Your task to perform on an android device: See recent photos Image 0: 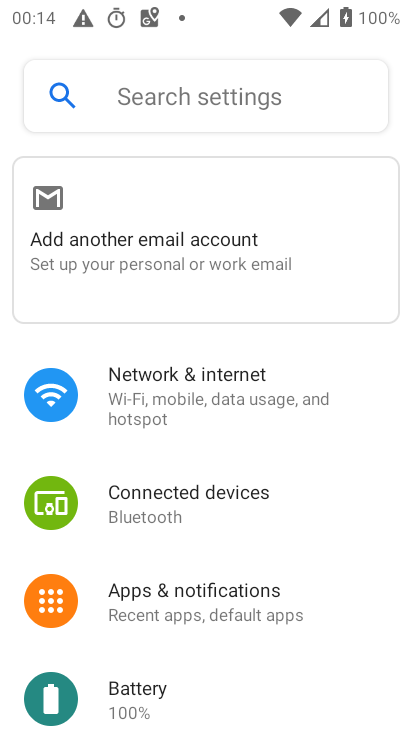
Step 0: press back button
Your task to perform on an android device: See recent photos Image 1: 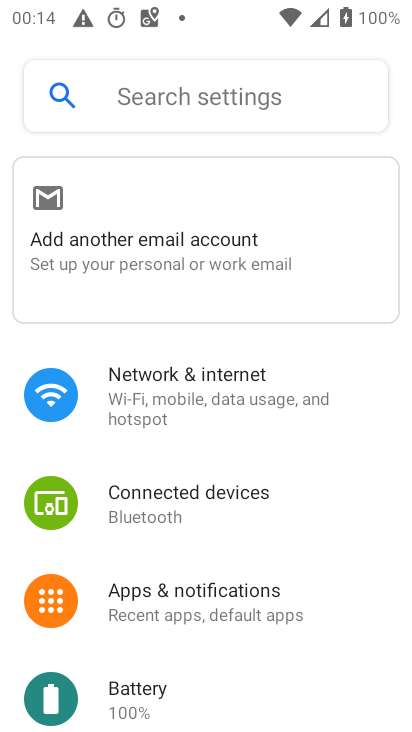
Step 1: press home button
Your task to perform on an android device: See recent photos Image 2: 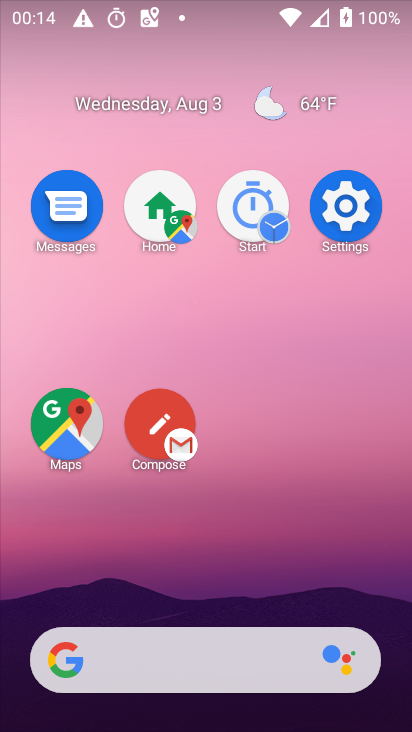
Step 2: drag from (205, 660) to (170, 219)
Your task to perform on an android device: See recent photos Image 3: 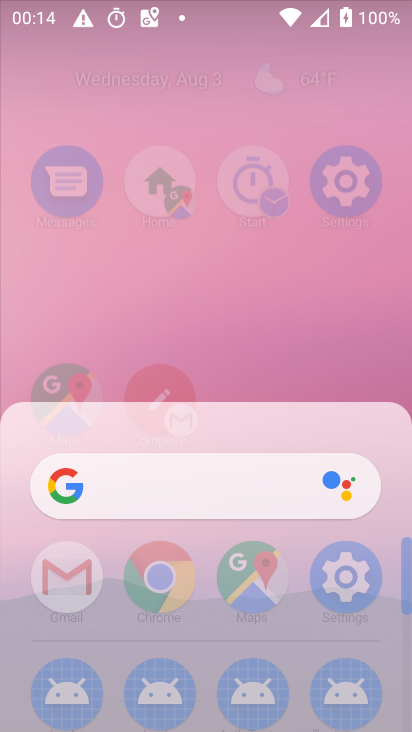
Step 3: drag from (176, 569) to (220, 4)
Your task to perform on an android device: See recent photos Image 4: 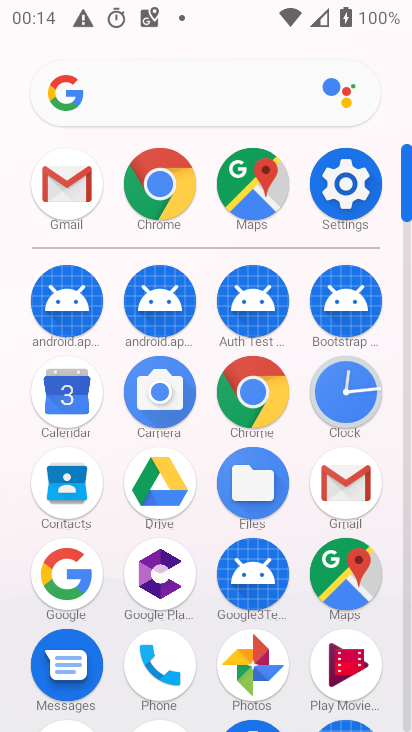
Step 4: drag from (243, 355) to (225, 162)
Your task to perform on an android device: See recent photos Image 5: 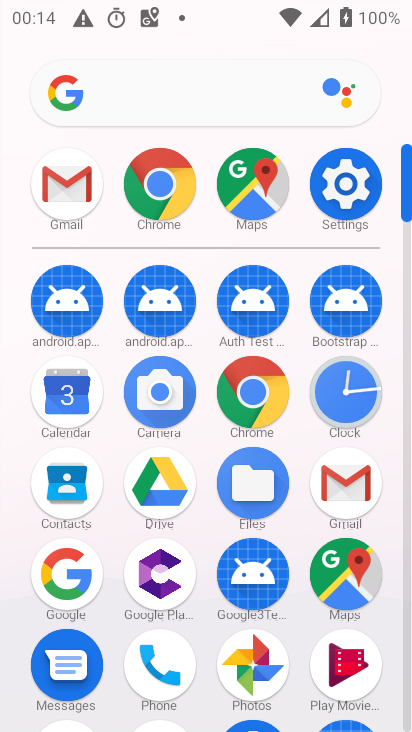
Step 5: click (254, 671)
Your task to perform on an android device: See recent photos Image 6: 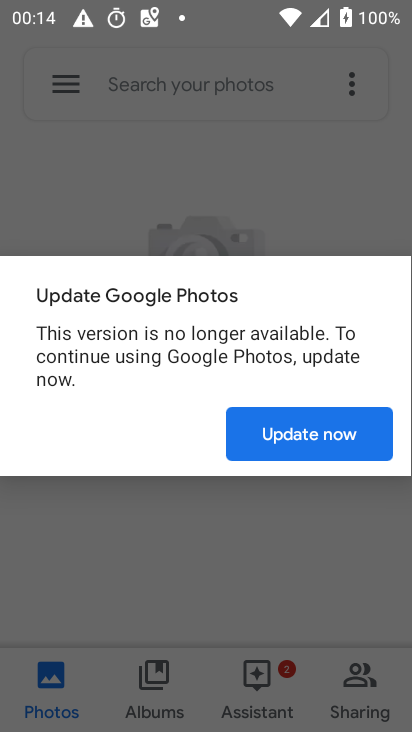
Step 6: click (254, 671)
Your task to perform on an android device: See recent photos Image 7: 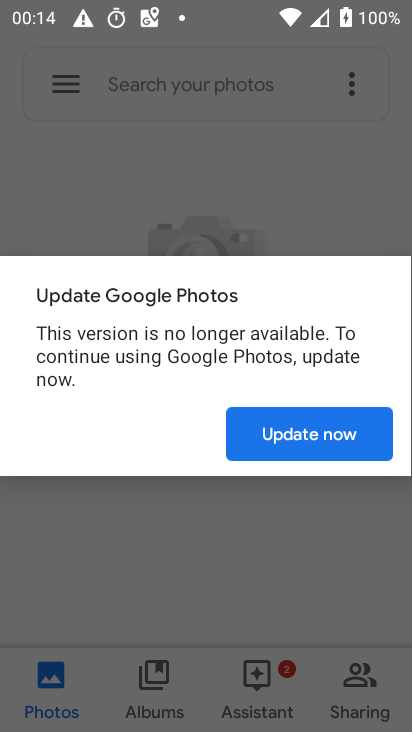
Step 7: click (257, 667)
Your task to perform on an android device: See recent photos Image 8: 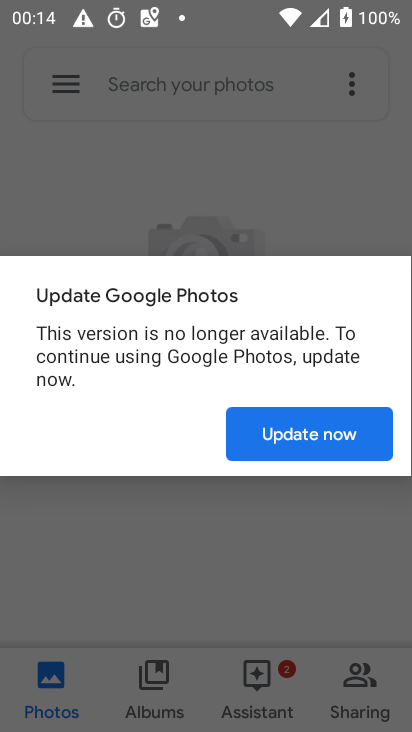
Step 8: click (303, 178)
Your task to perform on an android device: See recent photos Image 9: 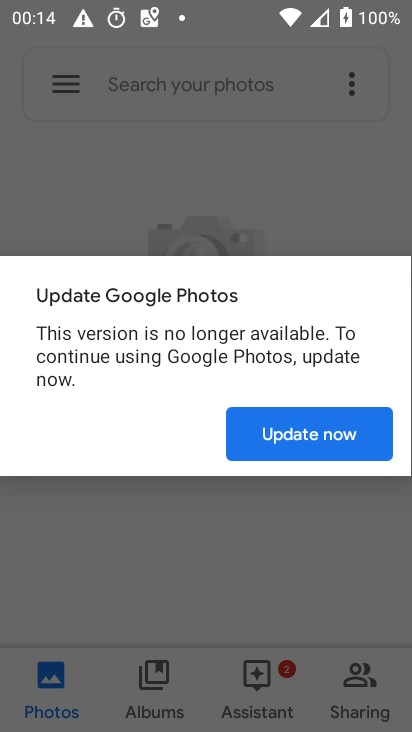
Step 9: click (303, 183)
Your task to perform on an android device: See recent photos Image 10: 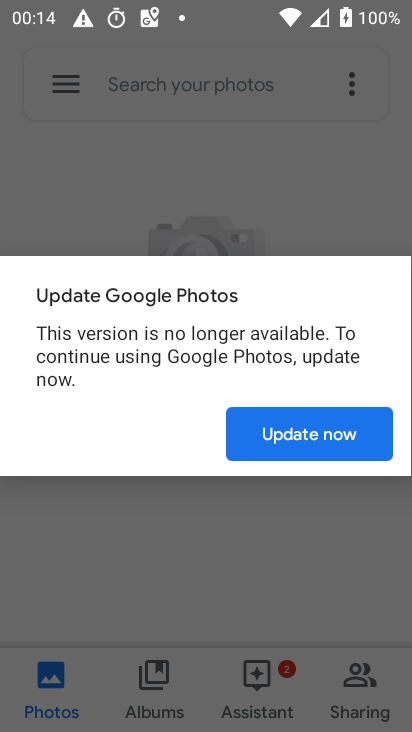
Step 10: click (311, 177)
Your task to perform on an android device: See recent photos Image 11: 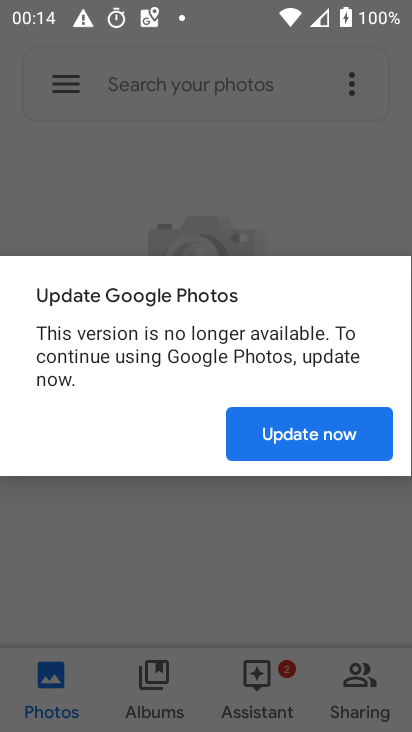
Step 11: press back button
Your task to perform on an android device: See recent photos Image 12: 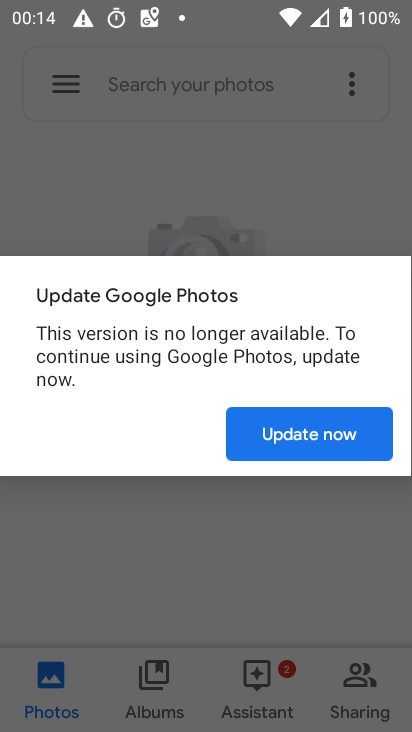
Step 12: click (223, 161)
Your task to perform on an android device: See recent photos Image 13: 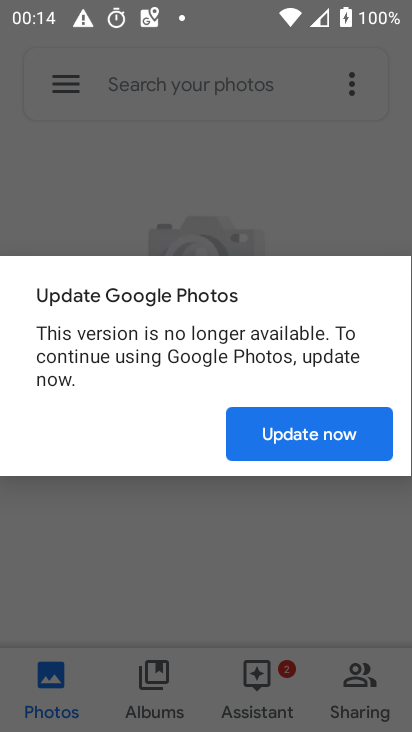
Step 13: click (224, 159)
Your task to perform on an android device: See recent photos Image 14: 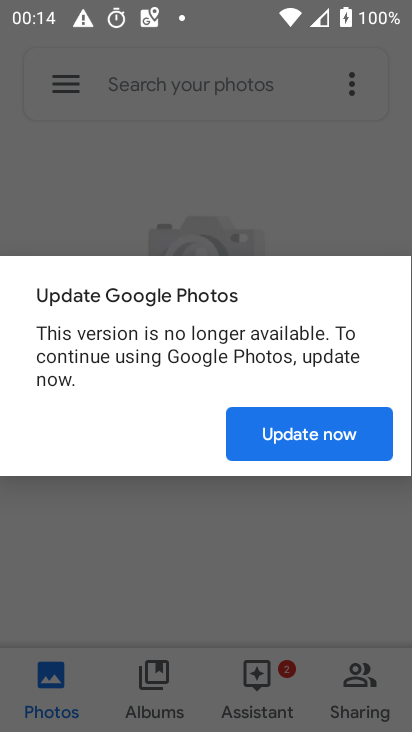
Step 14: click (283, 215)
Your task to perform on an android device: See recent photos Image 15: 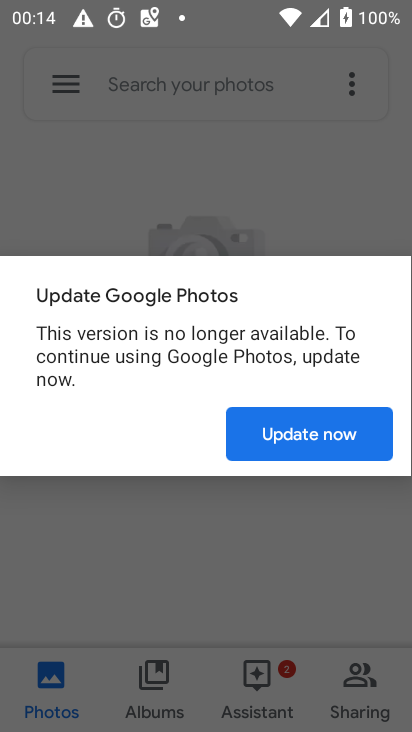
Step 15: click (287, 220)
Your task to perform on an android device: See recent photos Image 16: 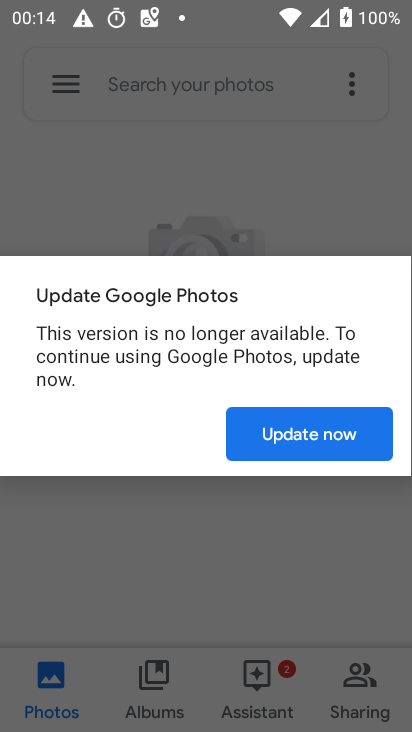
Step 16: click (130, 537)
Your task to perform on an android device: See recent photos Image 17: 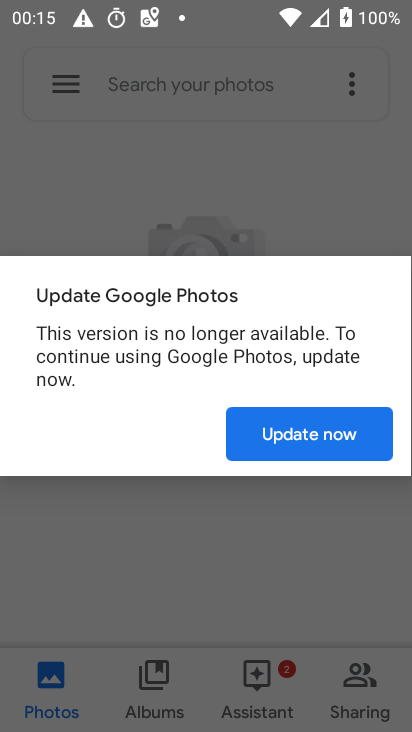
Step 17: click (128, 521)
Your task to perform on an android device: See recent photos Image 18: 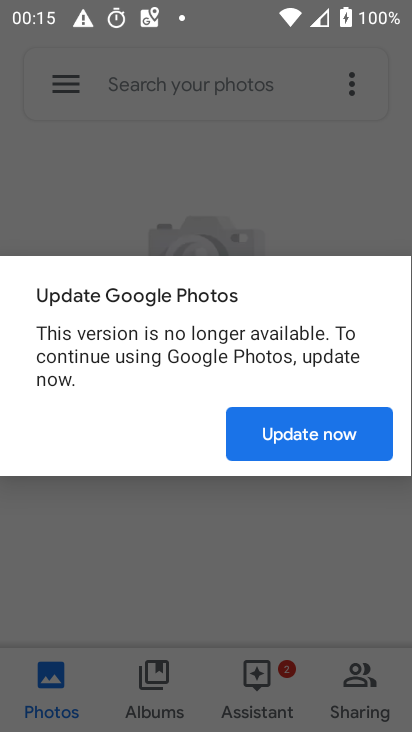
Step 18: click (143, 518)
Your task to perform on an android device: See recent photos Image 19: 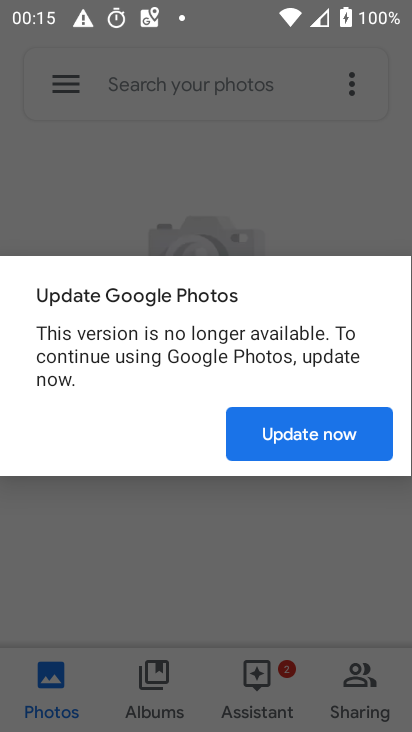
Step 19: click (165, 511)
Your task to perform on an android device: See recent photos Image 20: 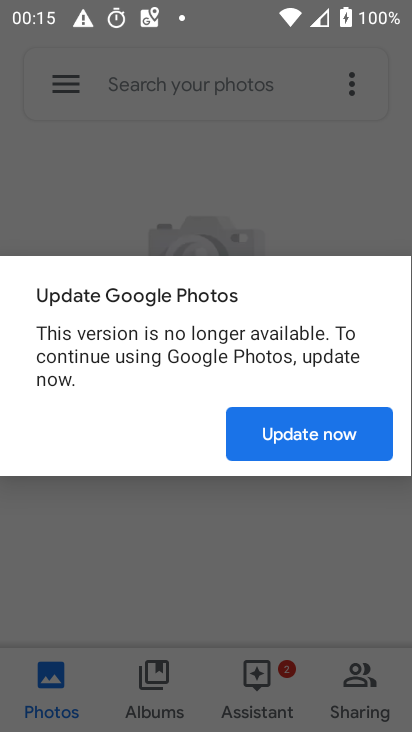
Step 20: click (166, 509)
Your task to perform on an android device: See recent photos Image 21: 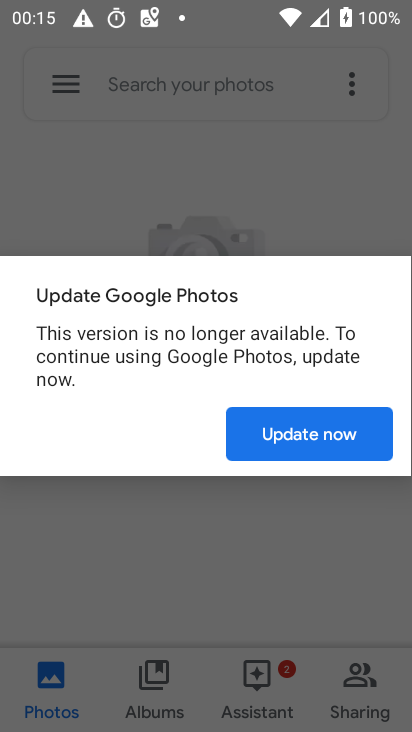
Step 21: click (277, 423)
Your task to perform on an android device: See recent photos Image 22: 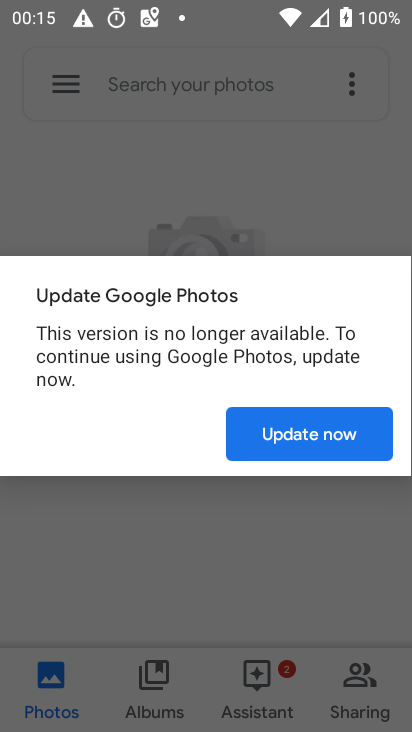
Step 22: click (278, 422)
Your task to perform on an android device: See recent photos Image 23: 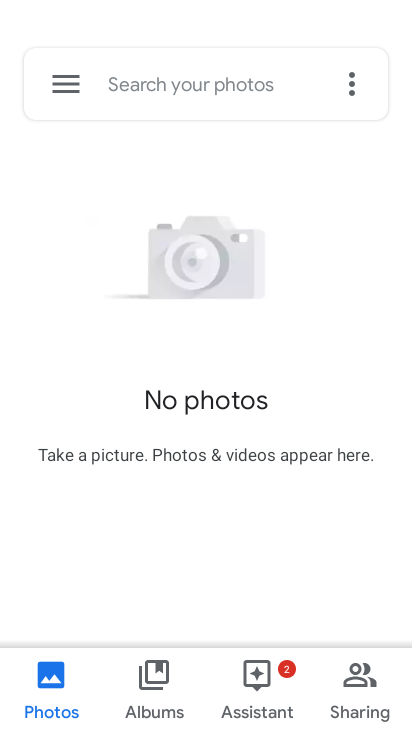
Step 23: click (278, 420)
Your task to perform on an android device: See recent photos Image 24: 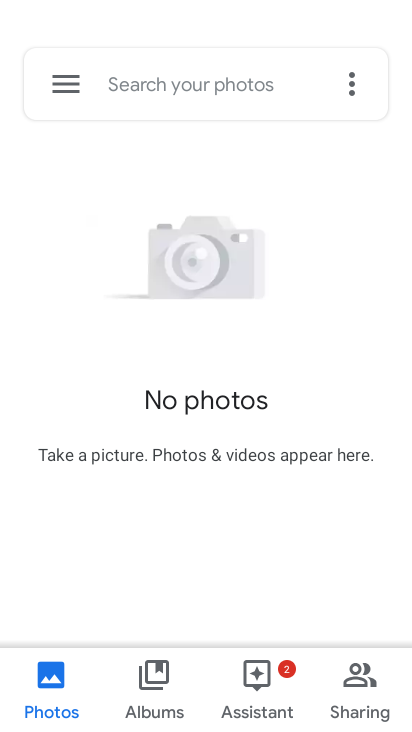
Step 24: click (278, 420)
Your task to perform on an android device: See recent photos Image 25: 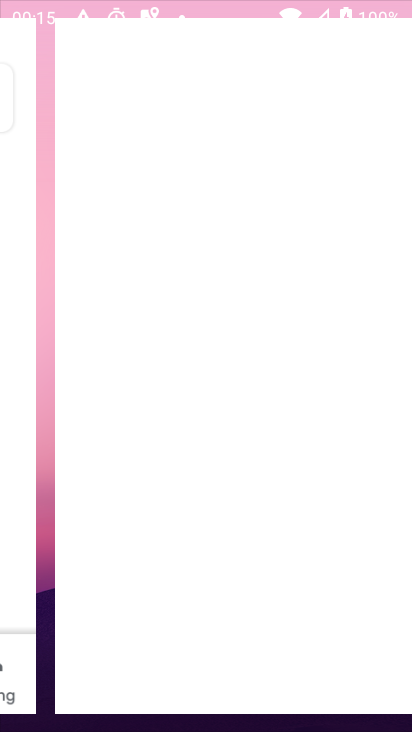
Step 25: click (278, 420)
Your task to perform on an android device: See recent photos Image 26: 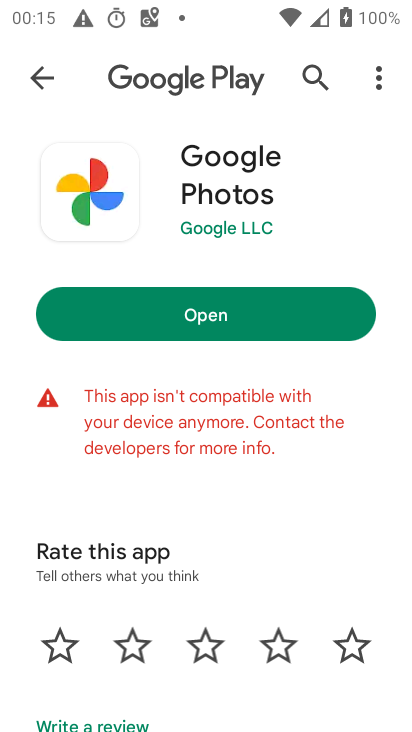
Step 26: task complete